Your task to perform on an android device: Open the calendar and show me this week's events? Image 0: 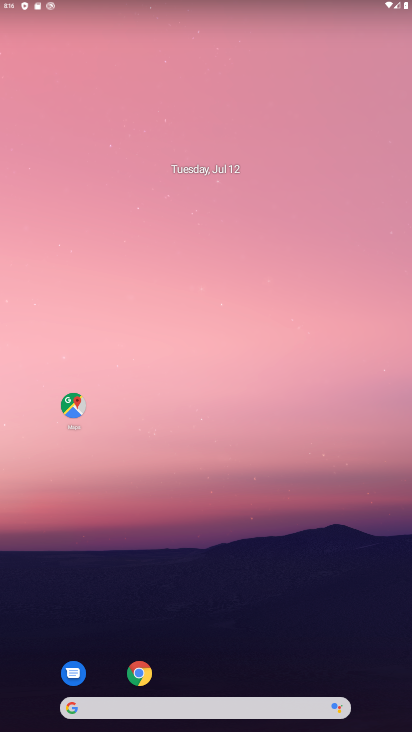
Step 0: drag from (227, 602) to (171, 11)
Your task to perform on an android device: Open the calendar and show me this week's events? Image 1: 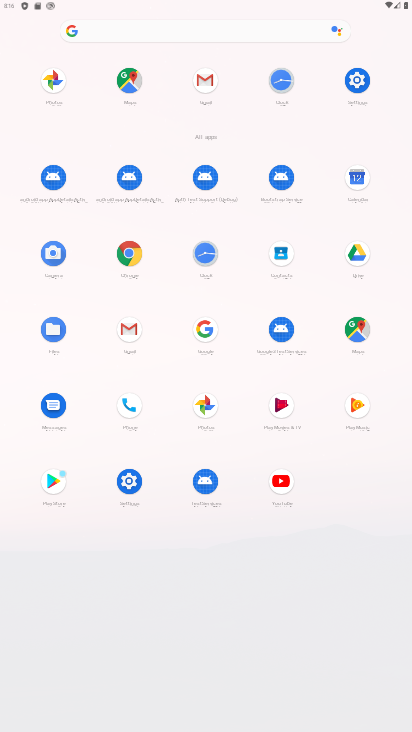
Step 1: click (363, 175)
Your task to perform on an android device: Open the calendar and show me this week's events? Image 2: 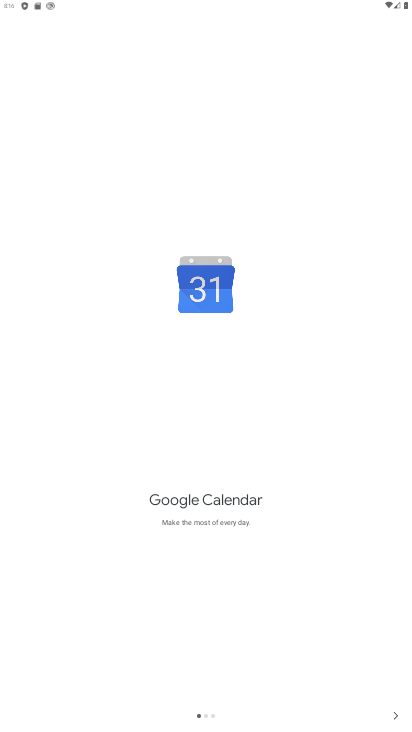
Step 2: click (385, 706)
Your task to perform on an android device: Open the calendar and show me this week's events? Image 3: 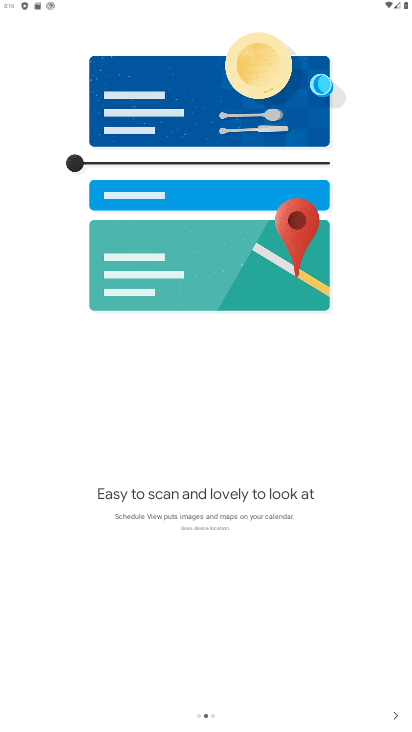
Step 3: click (385, 706)
Your task to perform on an android device: Open the calendar and show me this week's events? Image 4: 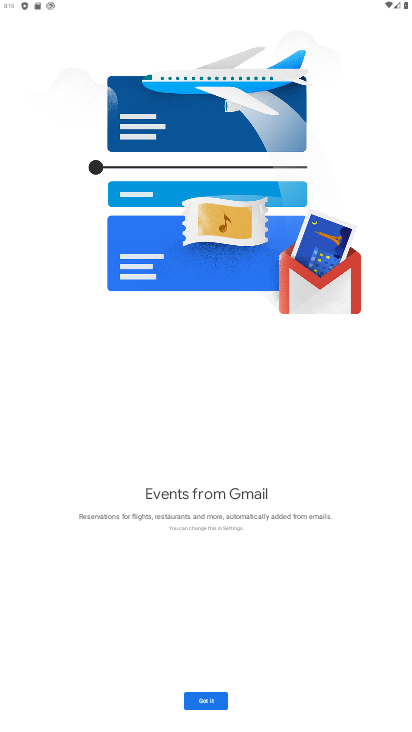
Step 4: click (205, 706)
Your task to perform on an android device: Open the calendar and show me this week's events? Image 5: 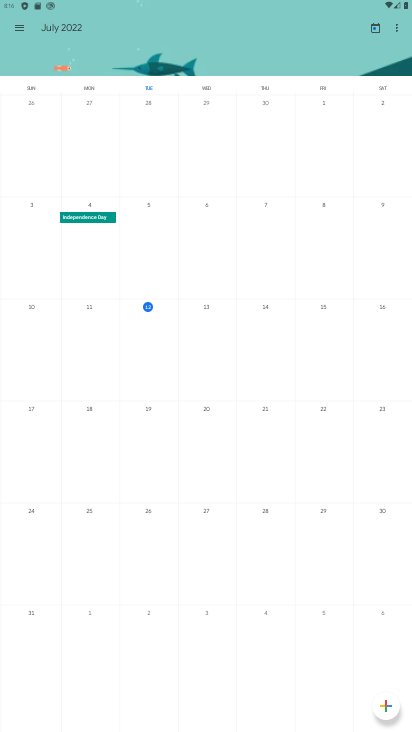
Step 5: click (144, 302)
Your task to perform on an android device: Open the calendar and show me this week's events? Image 6: 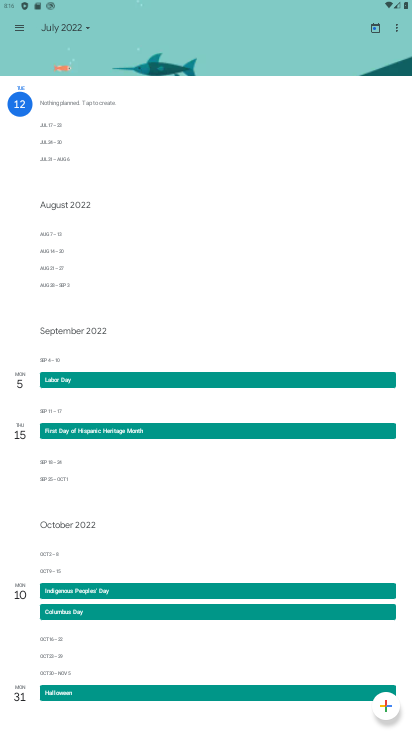
Step 6: task complete